Your task to perform on an android device: change the clock style Image 0: 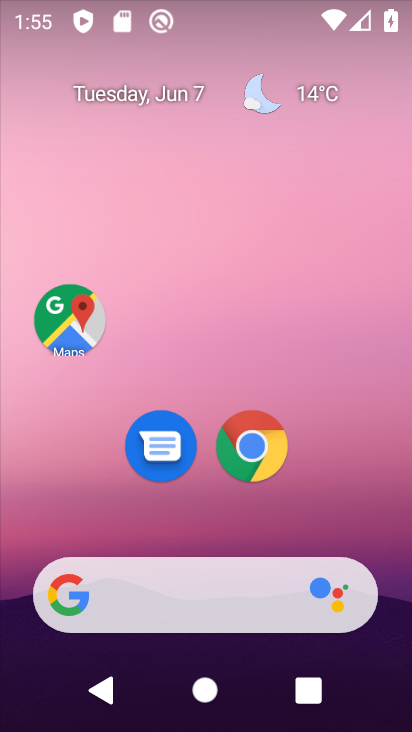
Step 0: drag from (394, 615) to (297, 88)
Your task to perform on an android device: change the clock style Image 1: 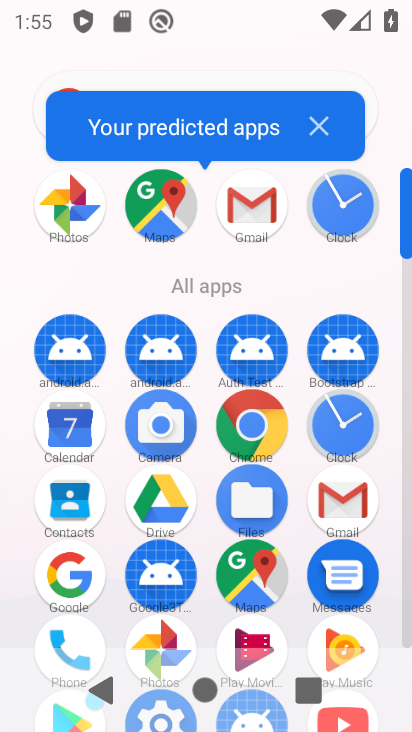
Step 1: click (406, 625)
Your task to perform on an android device: change the clock style Image 2: 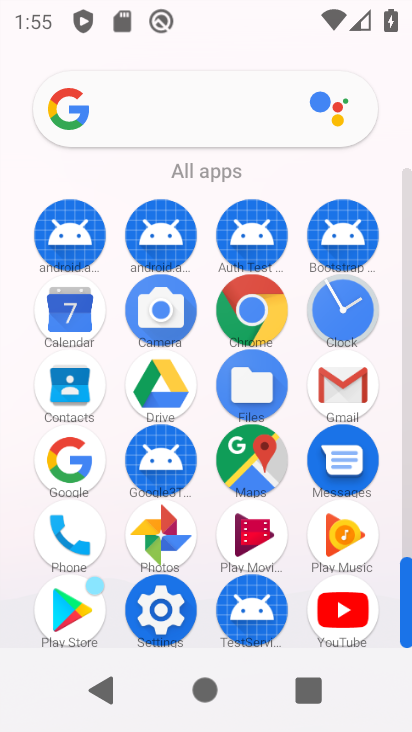
Step 2: click (342, 304)
Your task to perform on an android device: change the clock style Image 3: 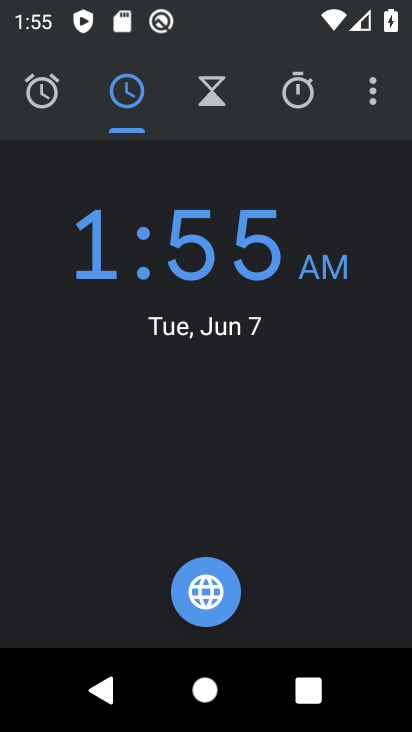
Step 3: click (374, 96)
Your task to perform on an android device: change the clock style Image 4: 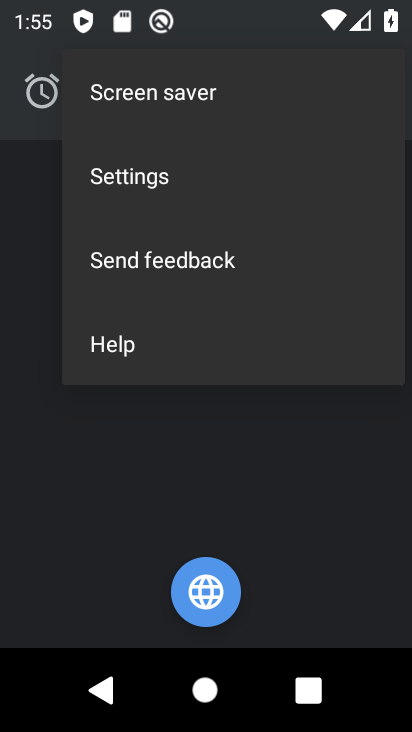
Step 4: click (132, 186)
Your task to perform on an android device: change the clock style Image 5: 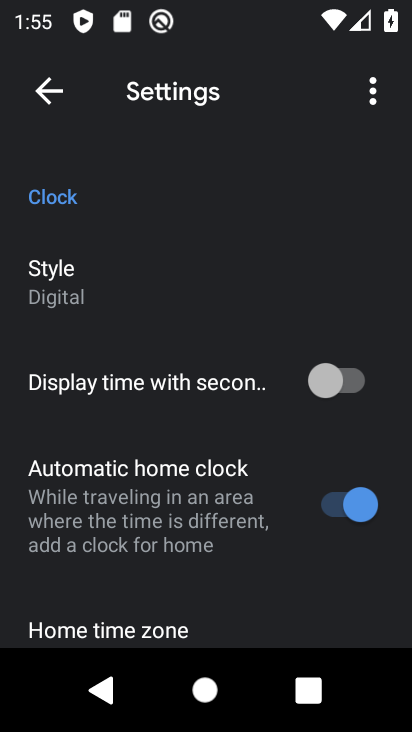
Step 5: click (59, 282)
Your task to perform on an android device: change the clock style Image 6: 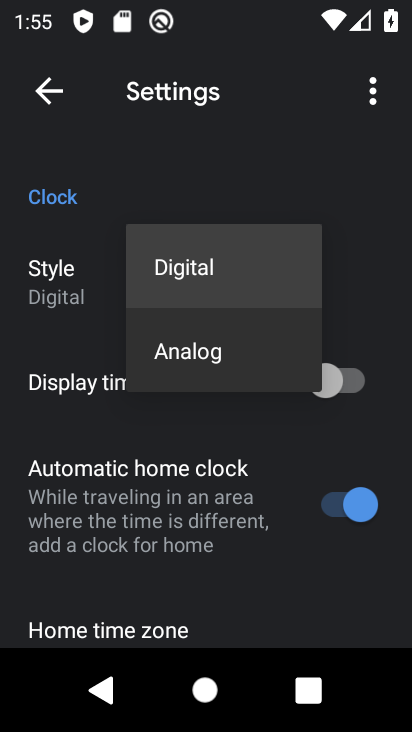
Step 6: click (189, 352)
Your task to perform on an android device: change the clock style Image 7: 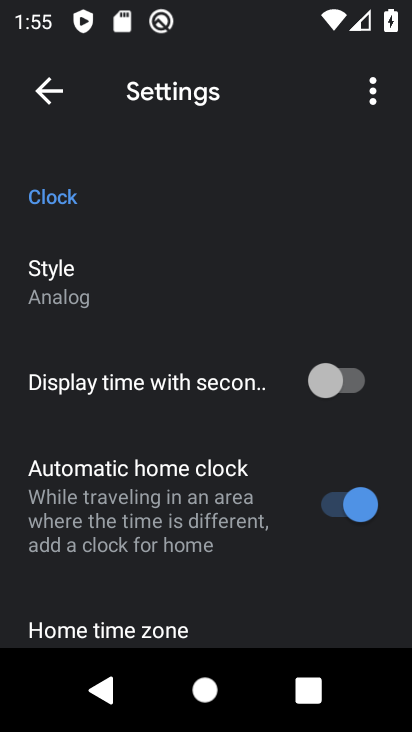
Step 7: task complete